Your task to perform on an android device: open chrome privacy settings Image 0: 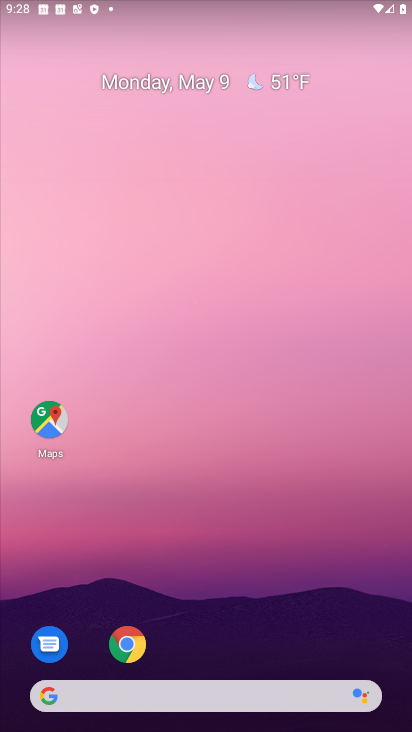
Step 0: drag from (214, 684) to (140, 30)
Your task to perform on an android device: open chrome privacy settings Image 1: 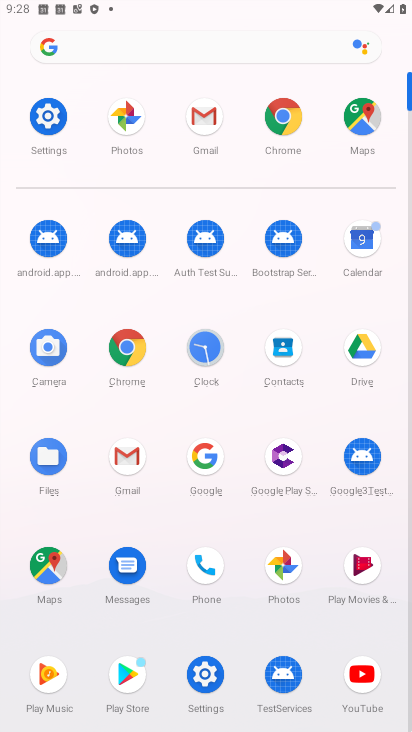
Step 1: click (113, 357)
Your task to perform on an android device: open chrome privacy settings Image 2: 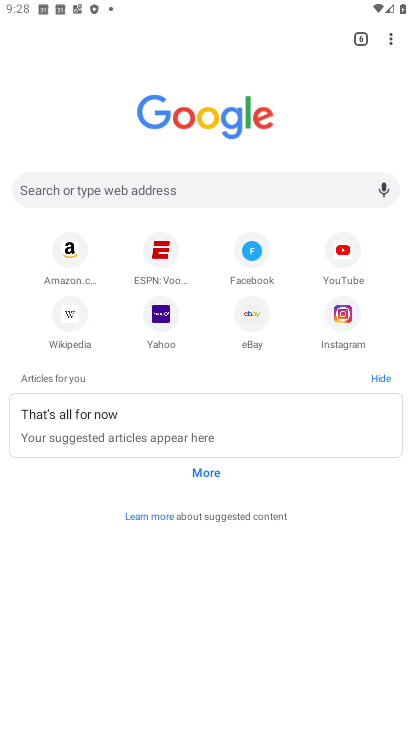
Step 2: click (389, 34)
Your task to perform on an android device: open chrome privacy settings Image 3: 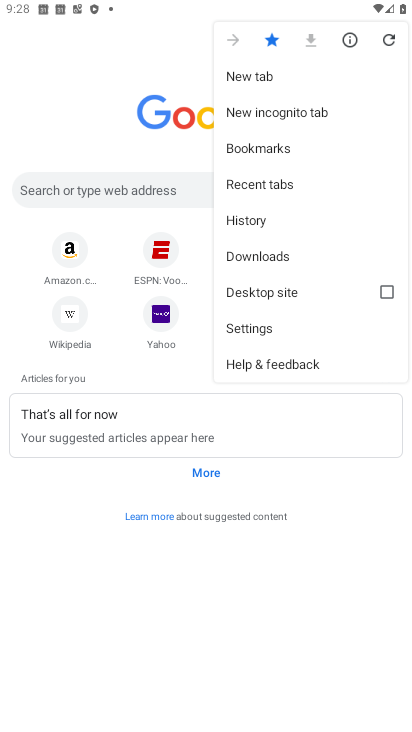
Step 3: click (276, 324)
Your task to perform on an android device: open chrome privacy settings Image 4: 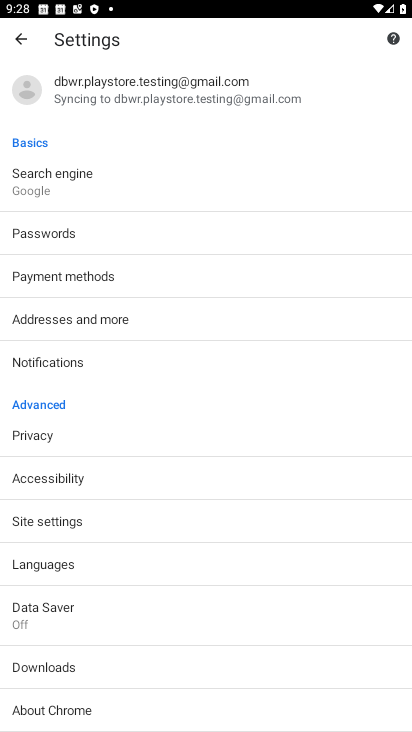
Step 4: click (28, 423)
Your task to perform on an android device: open chrome privacy settings Image 5: 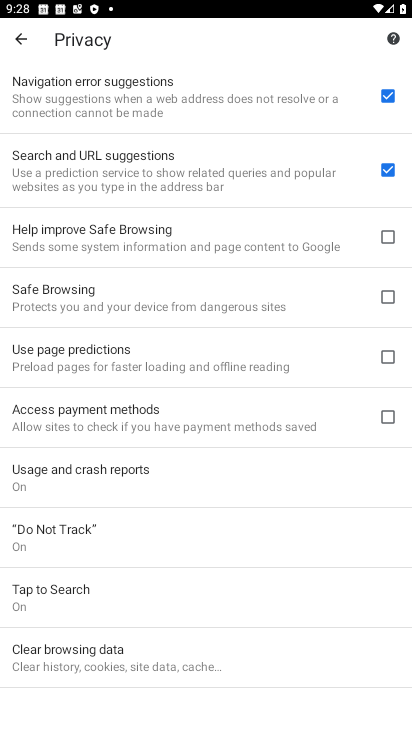
Step 5: task complete